Your task to perform on an android device: create a new album in the google photos Image 0: 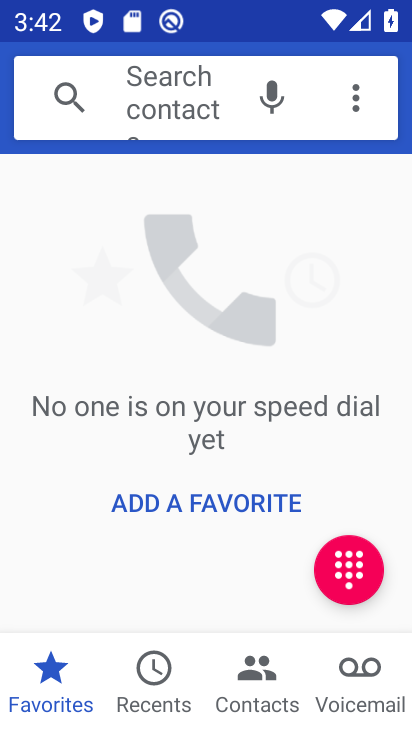
Step 0: press home button
Your task to perform on an android device: create a new album in the google photos Image 1: 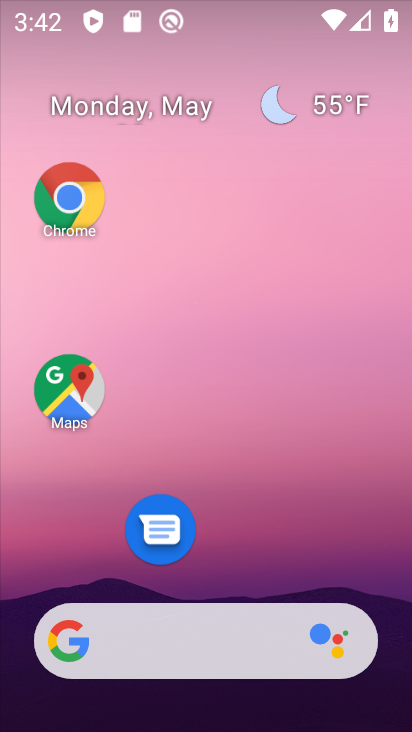
Step 1: drag from (239, 658) to (290, 136)
Your task to perform on an android device: create a new album in the google photos Image 2: 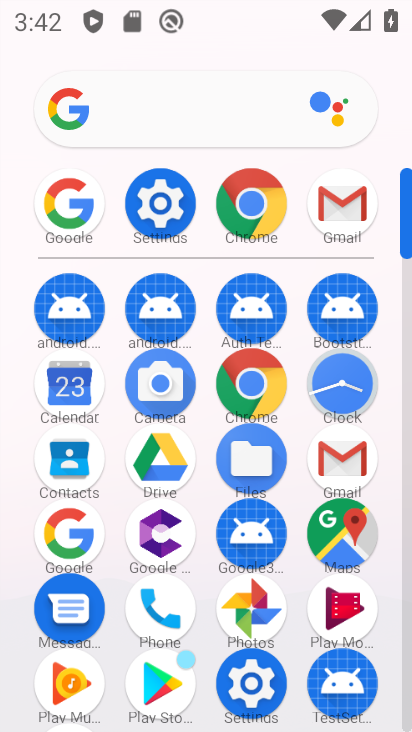
Step 2: click (258, 603)
Your task to perform on an android device: create a new album in the google photos Image 3: 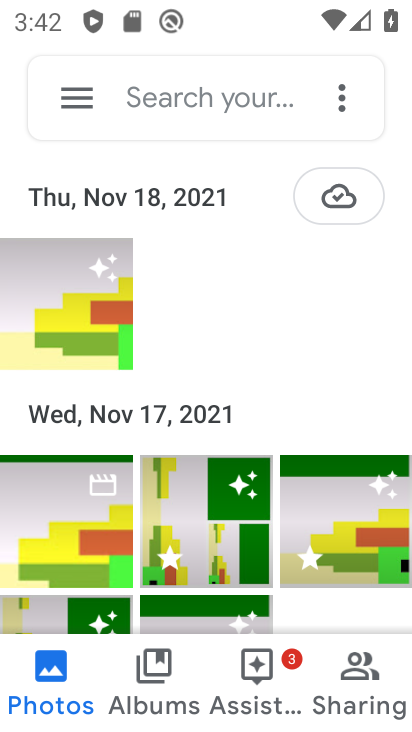
Step 3: click (156, 705)
Your task to perform on an android device: create a new album in the google photos Image 4: 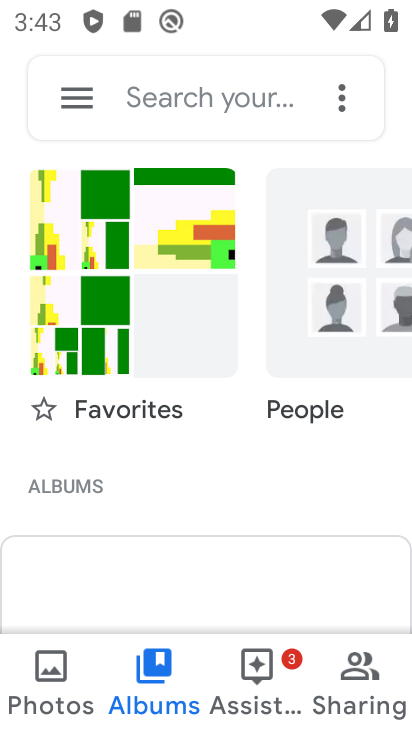
Step 4: drag from (118, 522) to (137, 88)
Your task to perform on an android device: create a new album in the google photos Image 5: 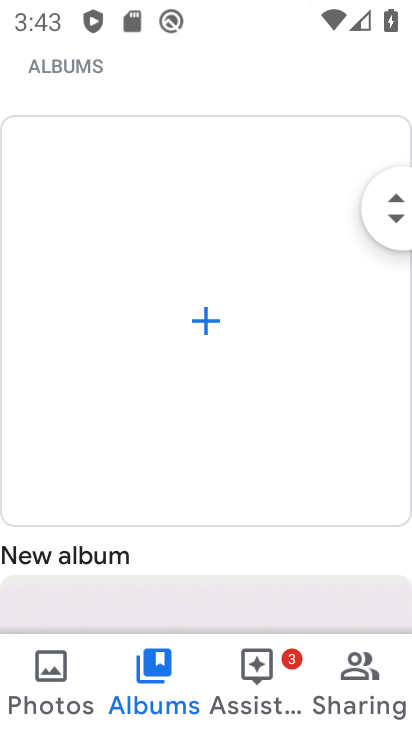
Step 5: click (203, 337)
Your task to perform on an android device: create a new album in the google photos Image 6: 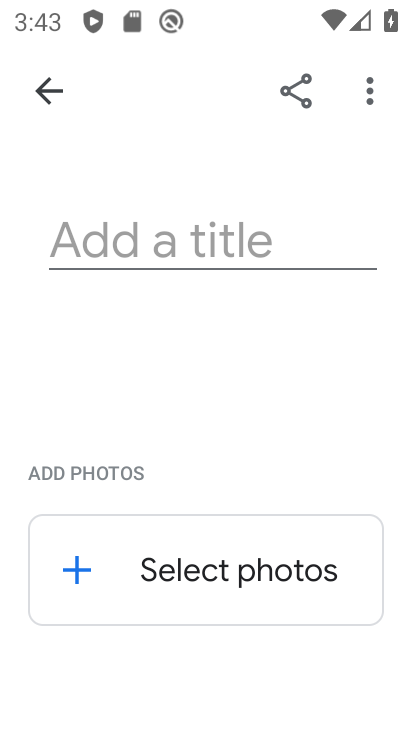
Step 6: click (263, 236)
Your task to perform on an android device: create a new album in the google photos Image 7: 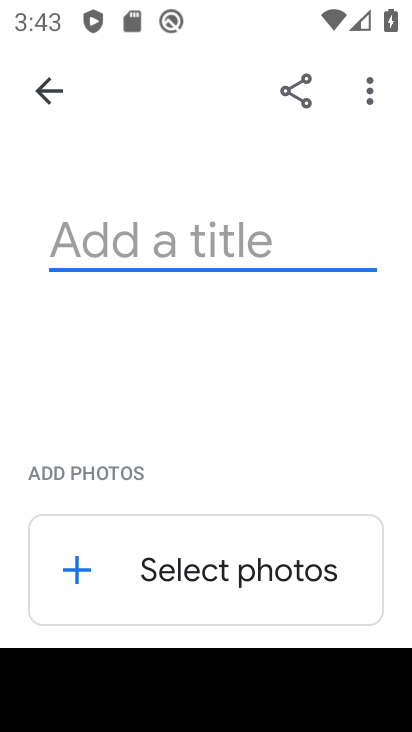
Step 7: type "dhh"
Your task to perform on an android device: create a new album in the google photos Image 8: 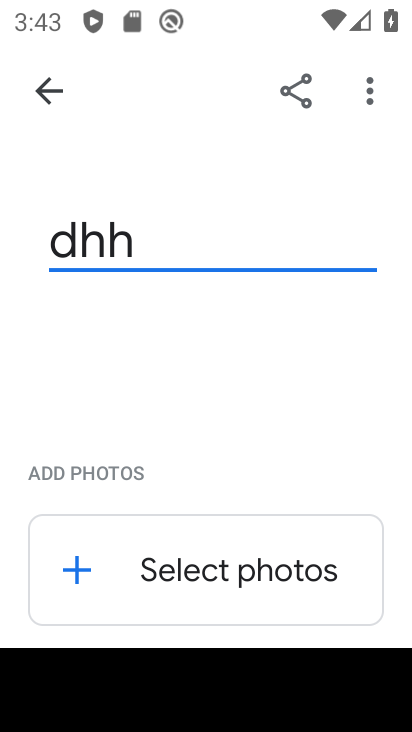
Step 8: click (82, 575)
Your task to perform on an android device: create a new album in the google photos Image 9: 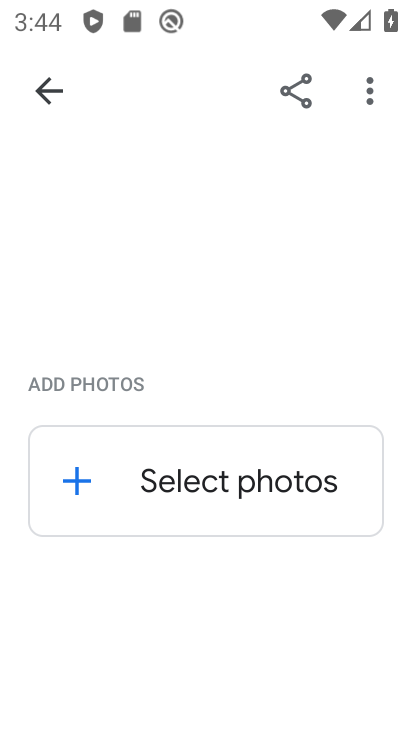
Step 9: click (142, 492)
Your task to perform on an android device: create a new album in the google photos Image 10: 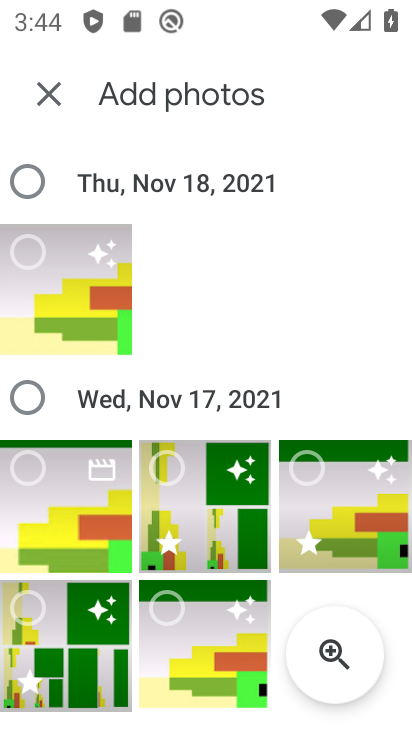
Step 10: click (150, 476)
Your task to perform on an android device: create a new album in the google photos Image 11: 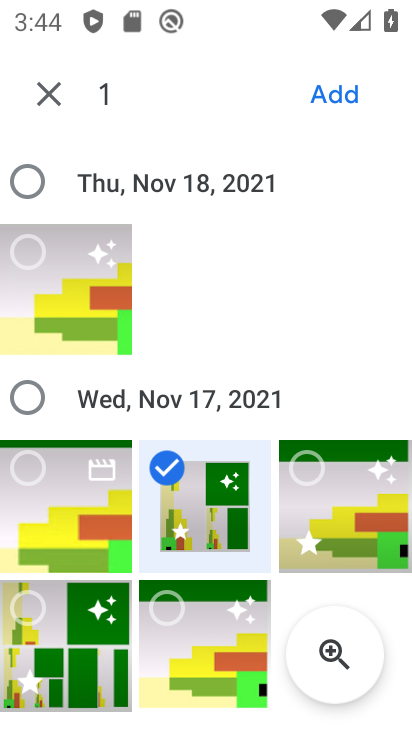
Step 11: click (291, 476)
Your task to perform on an android device: create a new album in the google photos Image 12: 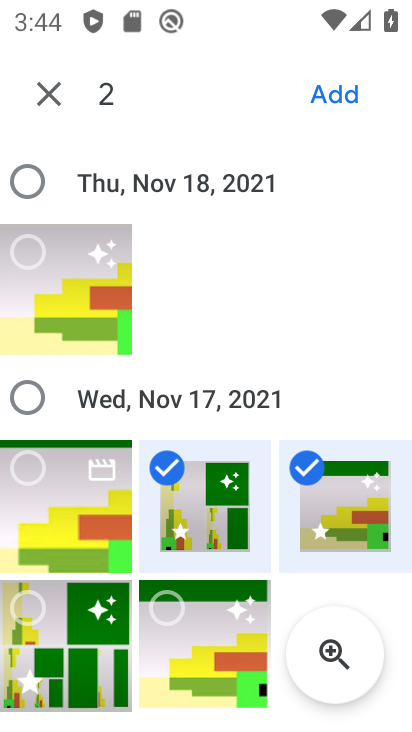
Step 12: click (46, 516)
Your task to perform on an android device: create a new album in the google photos Image 13: 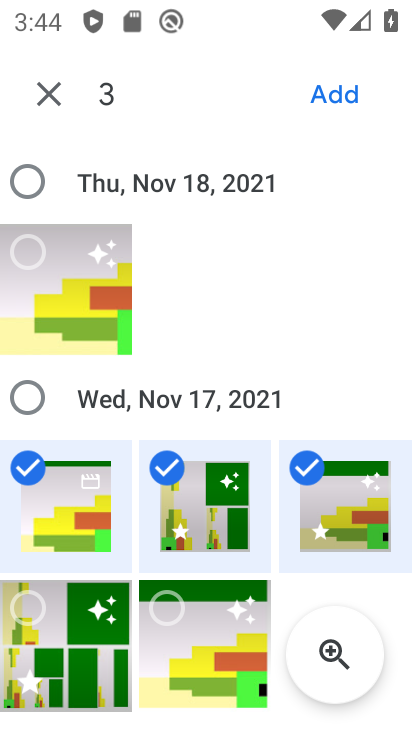
Step 13: click (340, 102)
Your task to perform on an android device: create a new album in the google photos Image 14: 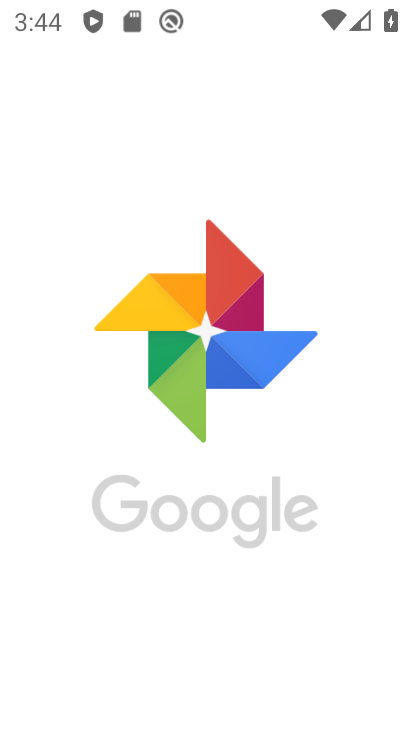
Step 14: task complete